Your task to perform on an android device: Open notification settings Image 0: 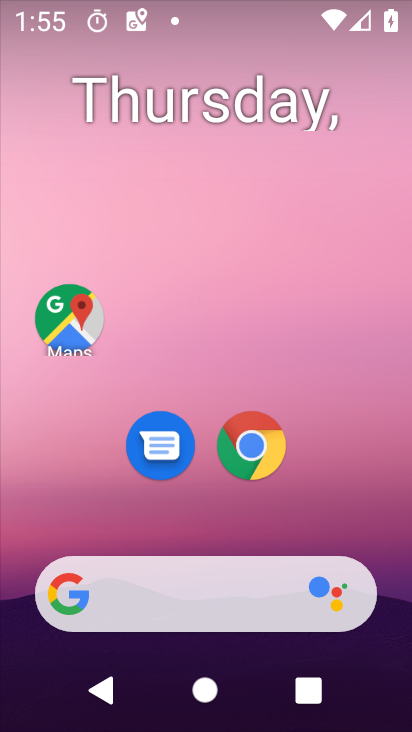
Step 0: click (254, 463)
Your task to perform on an android device: Open notification settings Image 1: 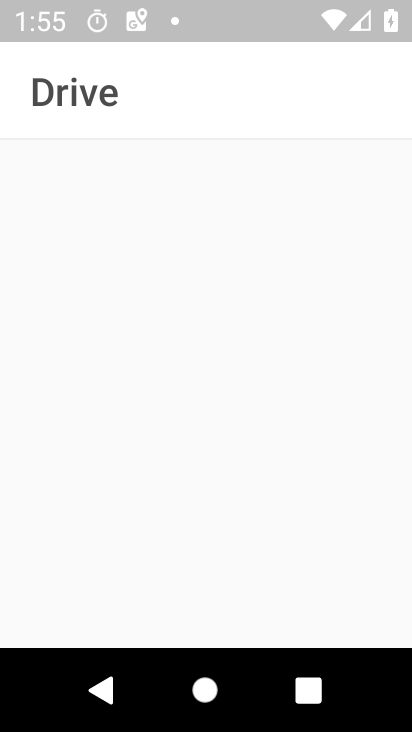
Step 1: click (252, 414)
Your task to perform on an android device: Open notification settings Image 2: 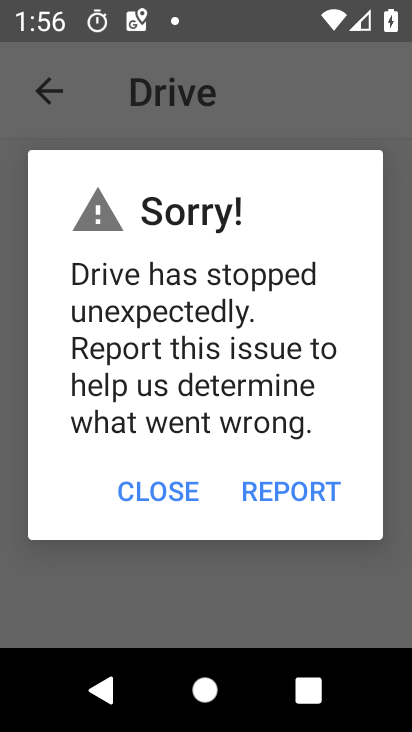
Step 2: click (252, 414)
Your task to perform on an android device: Open notification settings Image 3: 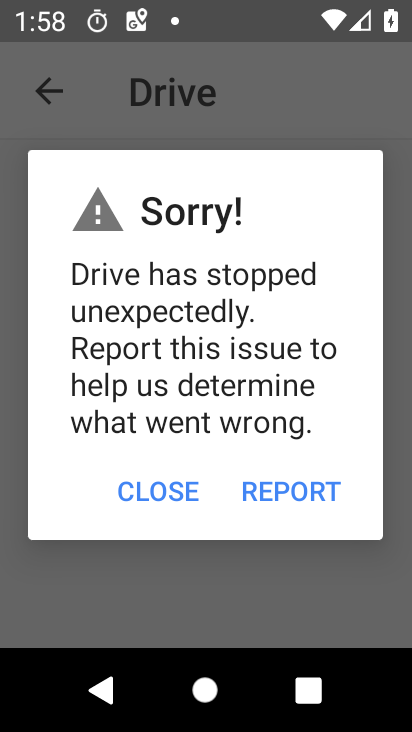
Step 3: press home button
Your task to perform on an android device: Open notification settings Image 4: 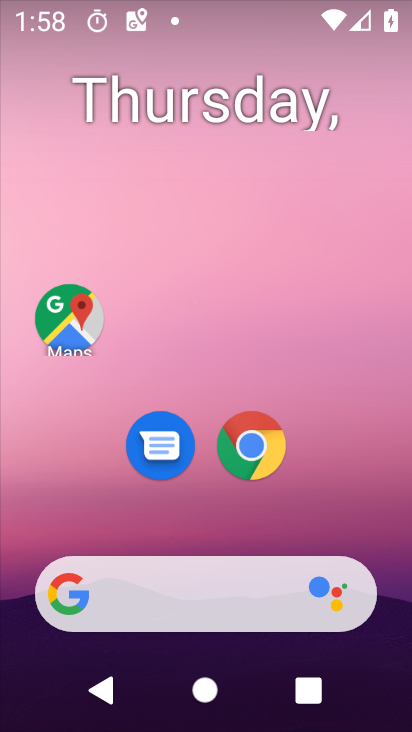
Step 4: drag from (190, 575) to (242, 127)
Your task to perform on an android device: Open notification settings Image 5: 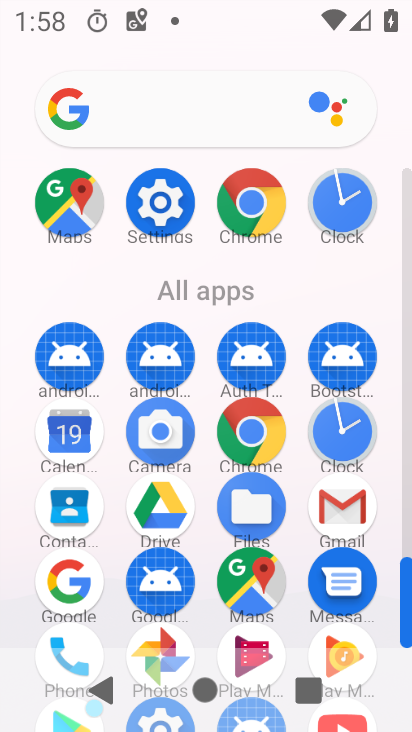
Step 5: click (165, 206)
Your task to perform on an android device: Open notification settings Image 6: 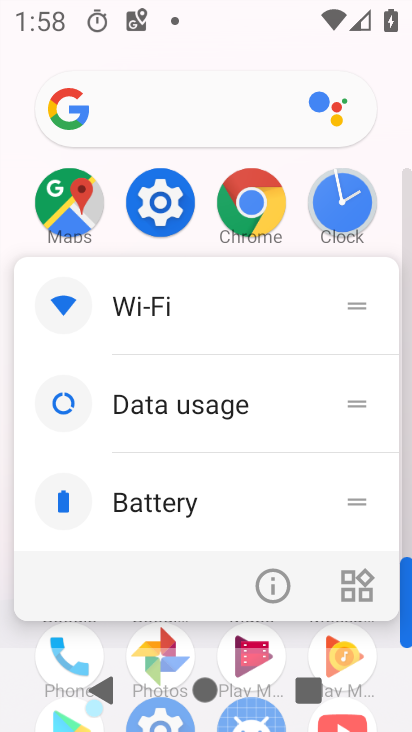
Step 6: click (141, 191)
Your task to perform on an android device: Open notification settings Image 7: 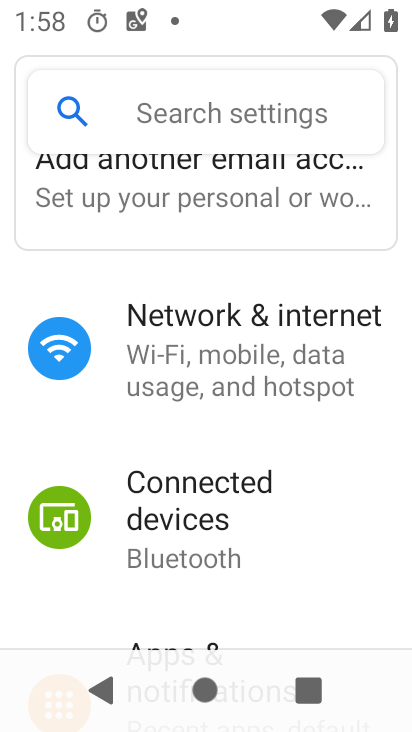
Step 7: drag from (191, 528) to (194, 116)
Your task to perform on an android device: Open notification settings Image 8: 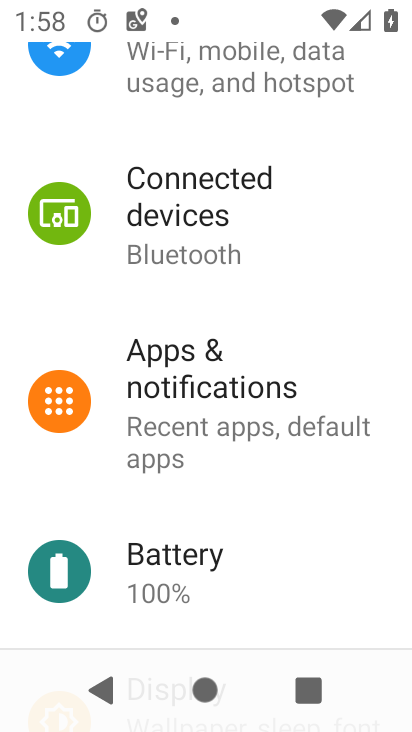
Step 8: click (172, 432)
Your task to perform on an android device: Open notification settings Image 9: 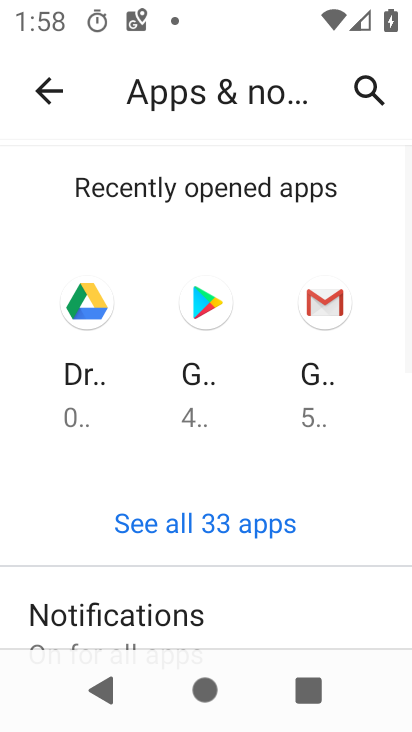
Step 9: task complete